Your task to perform on an android device: clear history in the chrome app Image 0: 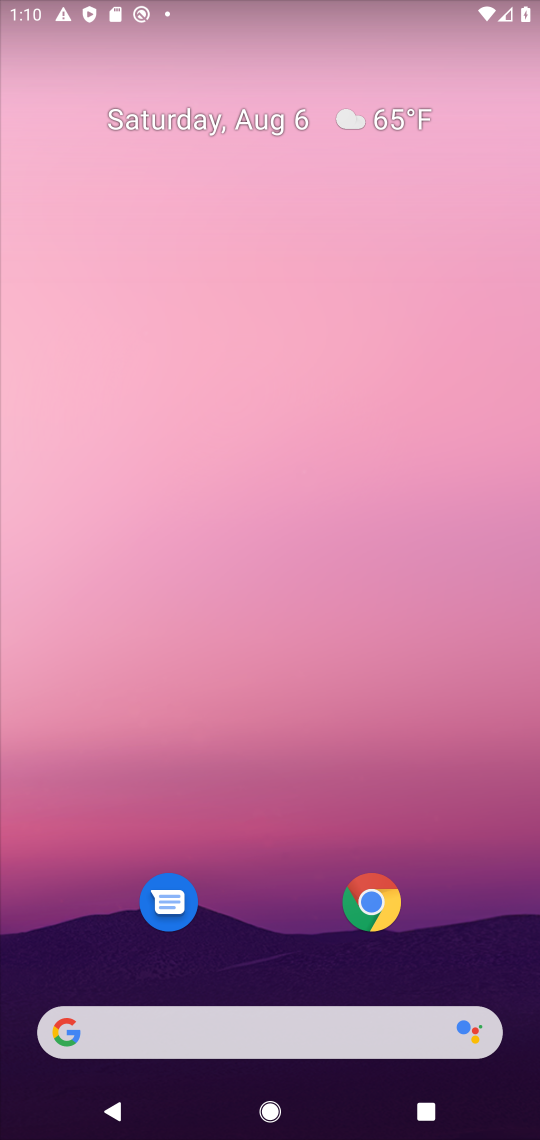
Step 0: click (366, 904)
Your task to perform on an android device: clear history in the chrome app Image 1: 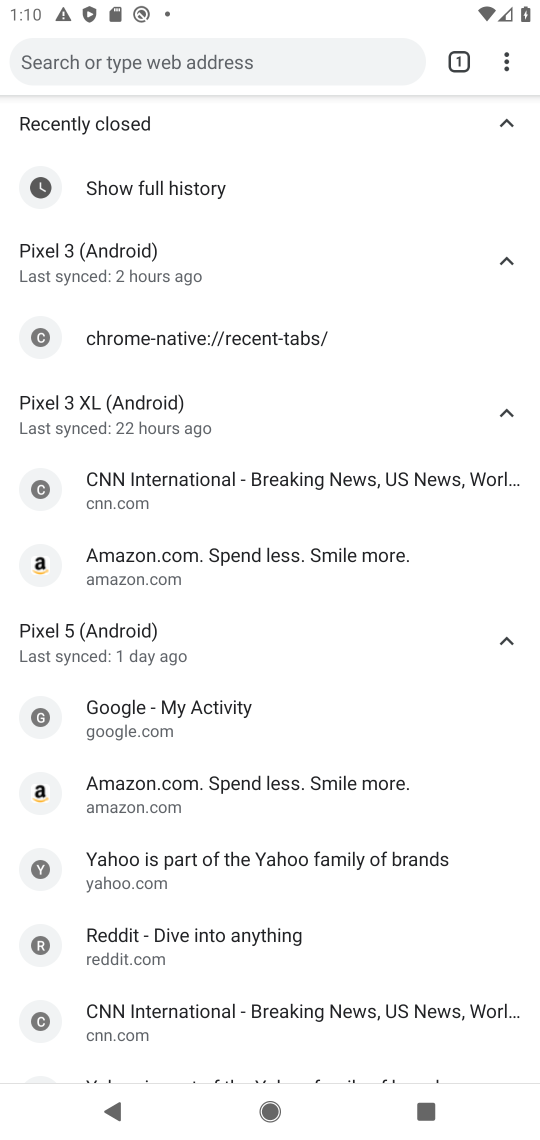
Step 1: click (508, 64)
Your task to perform on an android device: clear history in the chrome app Image 2: 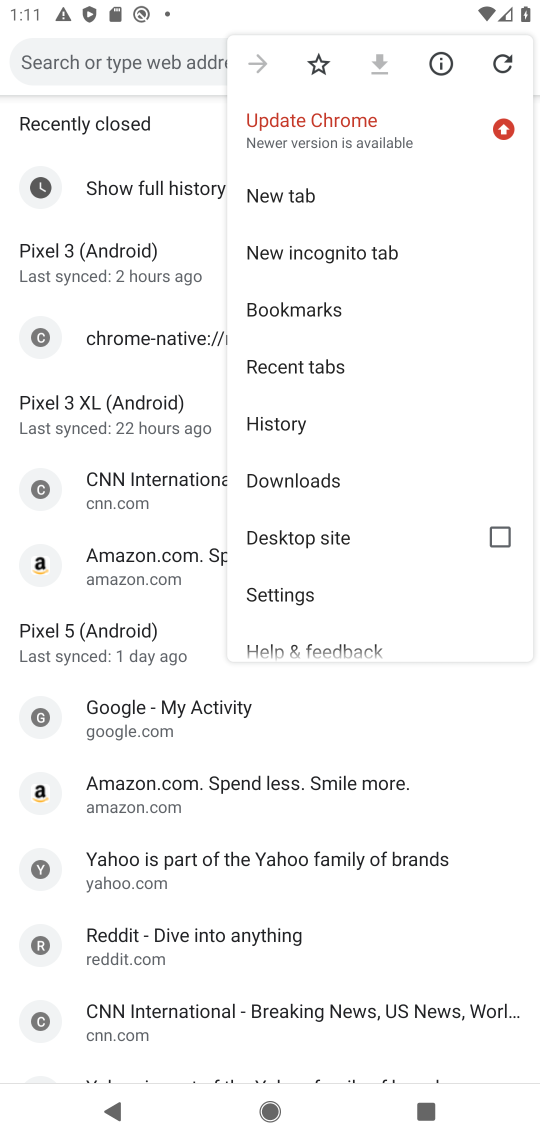
Step 2: click (287, 414)
Your task to perform on an android device: clear history in the chrome app Image 3: 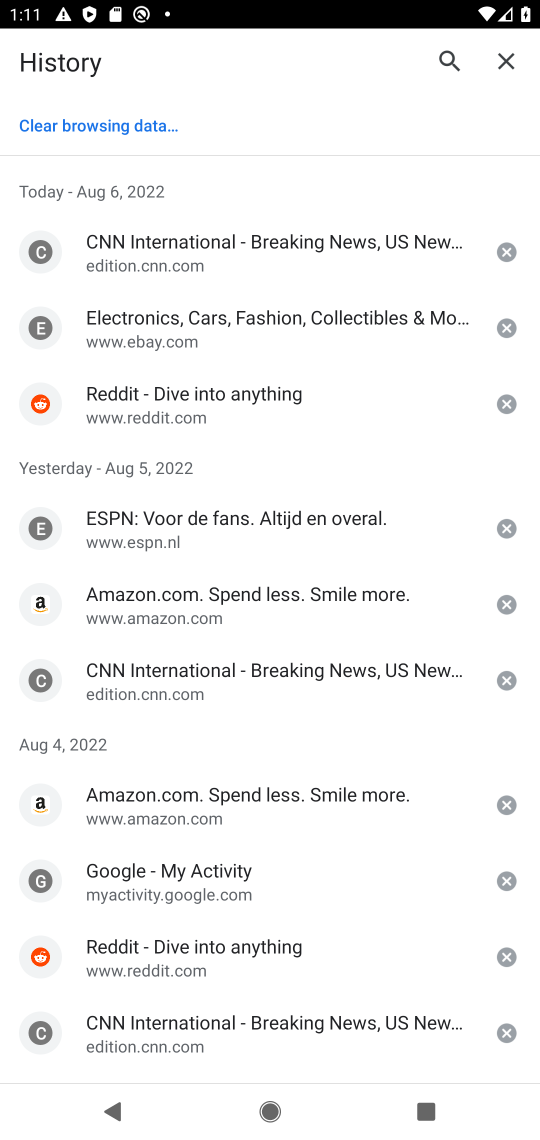
Step 3: click (97, 119)
Your task to perform on an android device: clear history in the chrome app Image 4: 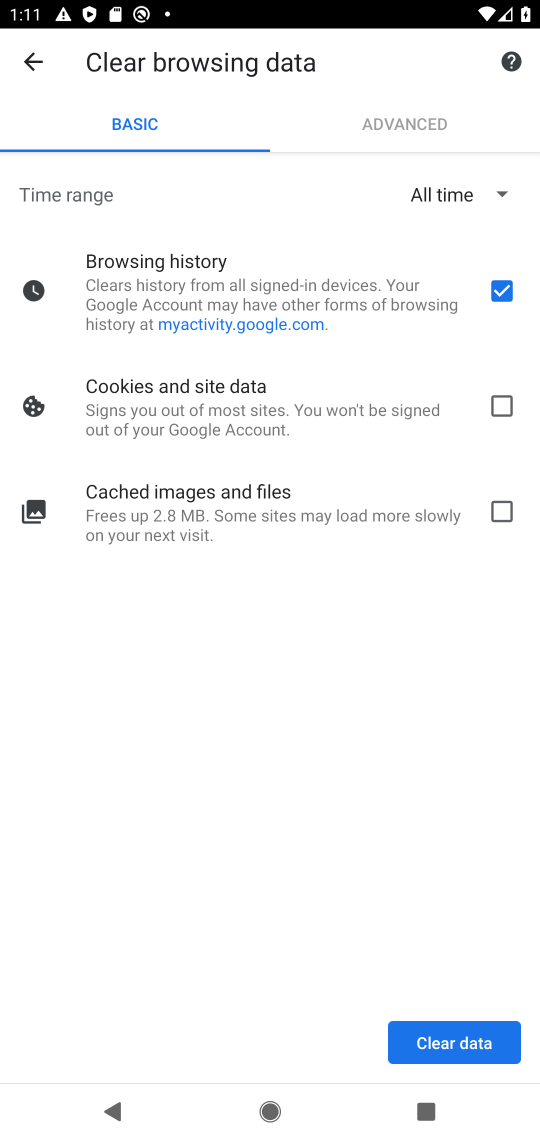
Step 4: click (458, 1039)
Your task to perform on an android device: clear history in the chrome app Image 5: 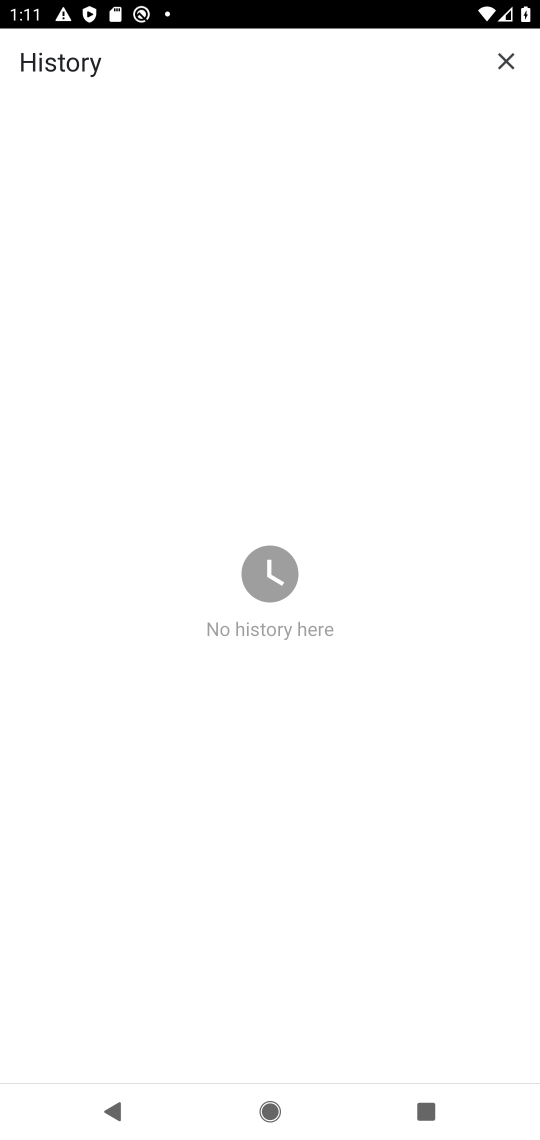
Step 5: task complete